Your task to perform on an android device: Show me popular videos on Youtube Image 0: 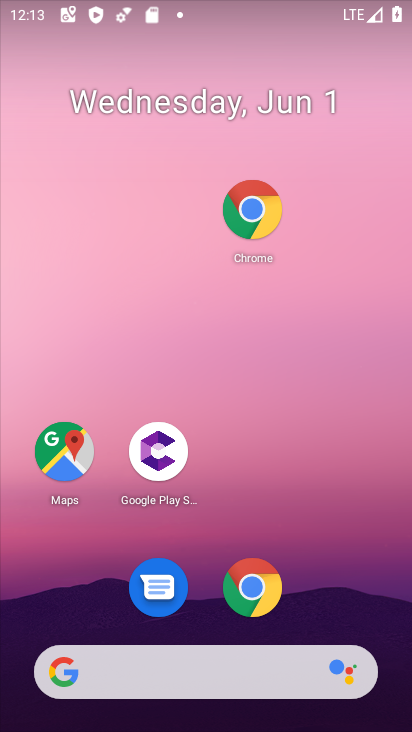
Step 0: drag from (374, 545) to (351, 167)
Your task to perform on an android device: Show me popular videos on Youtube Image 1: 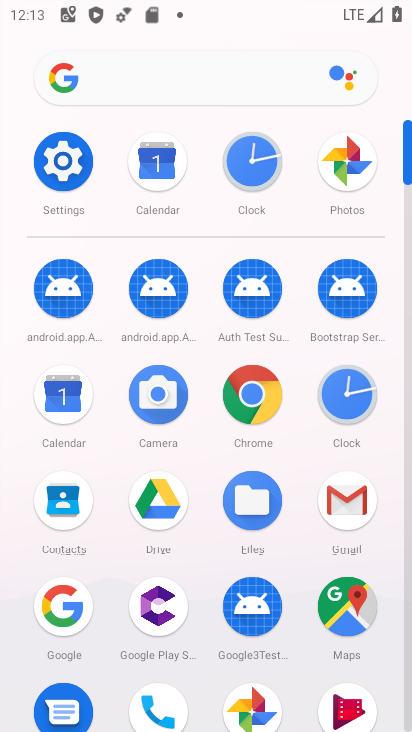
Step 1: drag from (193, 240) to (191, 67)
Your task to perform on an android device: Show me popular videos on Youtube Image 2: 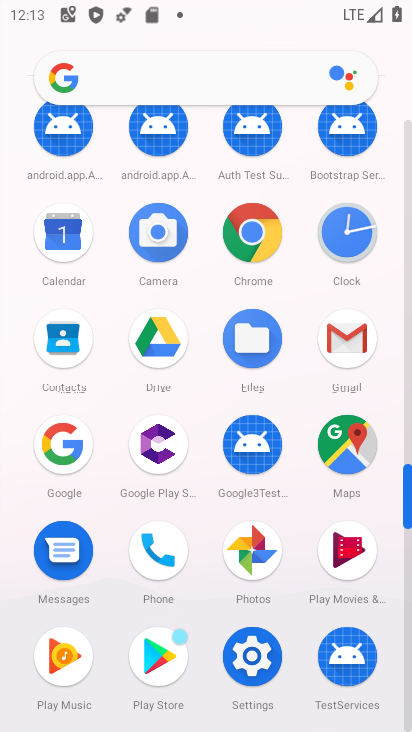
Step 2: drag from (200, 515) to (191, 361)
Your task to perform on an android device: Show me popular videos on Youtube Image 3: 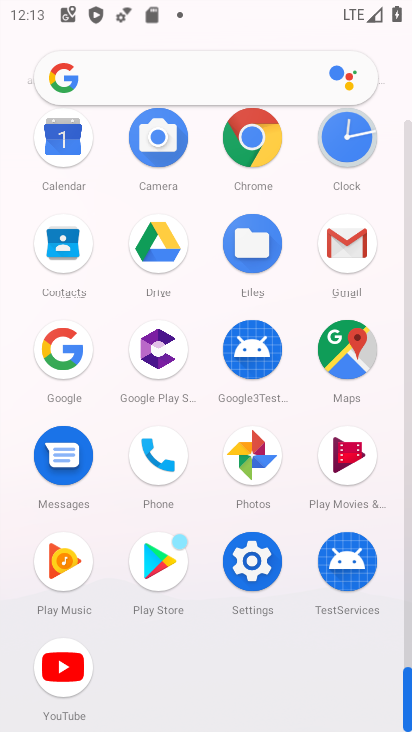
Step 3: click (50, 665)
Your task to perform on an android device: Show me popular videos on Youtube Image 4: 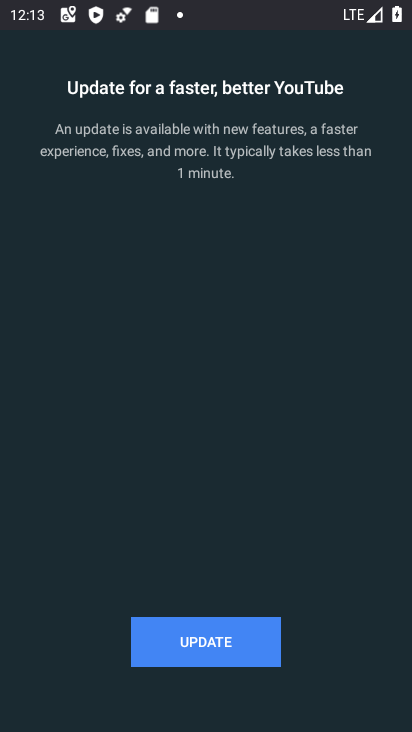
Step 4: click (209, 649)
Your task to perform on an android device: Show me popular videos on Youtube Image 5: 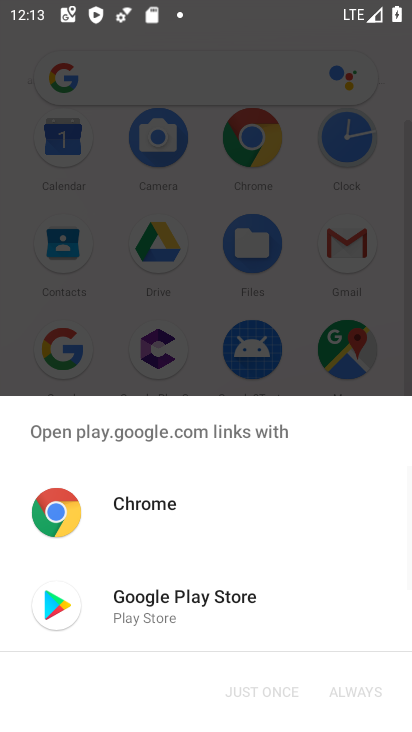
Step 5: click (263, 608)
Your task to perform on an android device: Show me popular videos on Youtube Image 6: 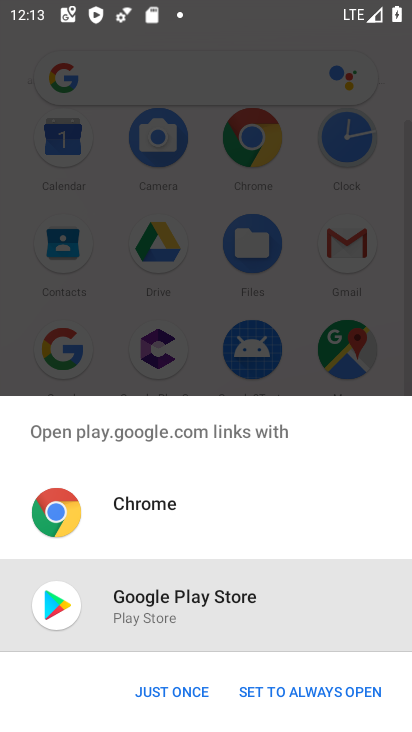
Step 6: click (172, 693)
Your task to perform on an android device: Show me popular videos on Youtube Image 7: 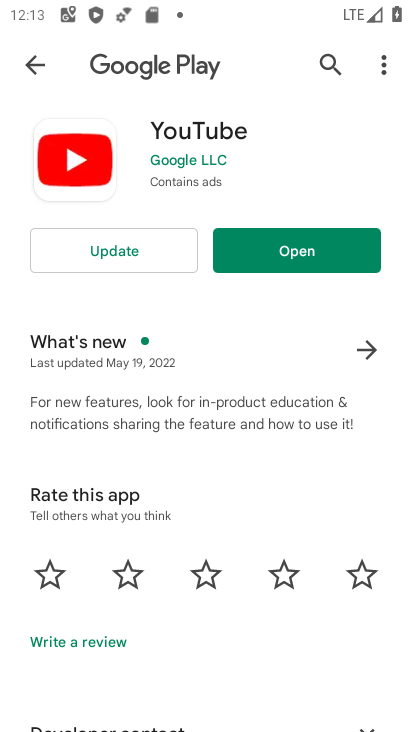
Step 7: click (179, 247)
Your task to perform on an android device: Show me popular videos on Youtube Image 8: 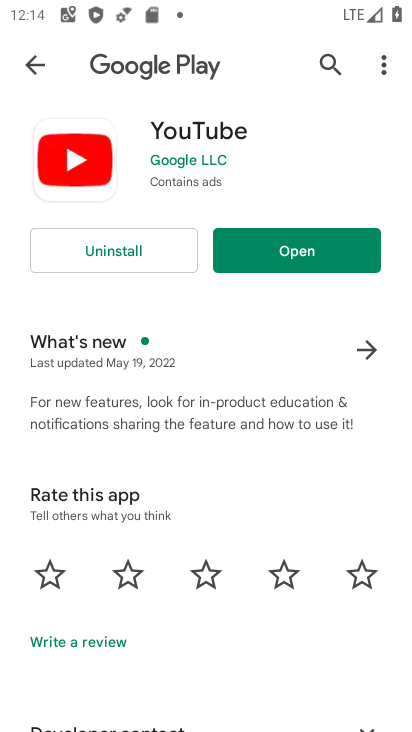
Step 8: click (270, 244)
Your task to perform on an android device: Show me popular videos on Youtube Image 9: 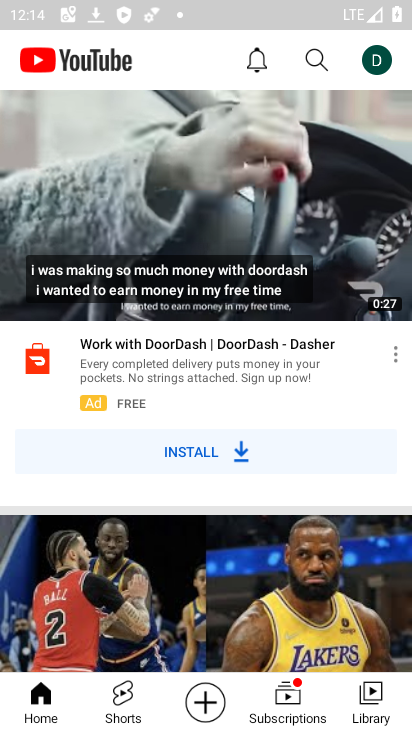
Step 9: drag from (186, 204) to (189, 266)
Your task to perform on an android device: Show me popular videos on Youtube Image 10: 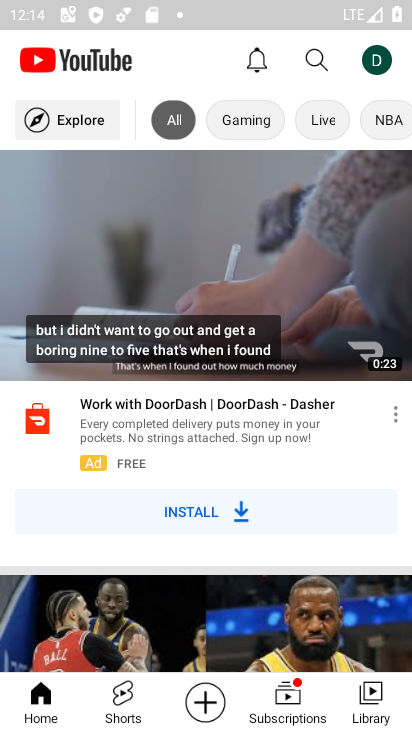
Step 10: click (80, 112)
Your task to perform on an android device: Show me popular videos on Youtube Image 11: 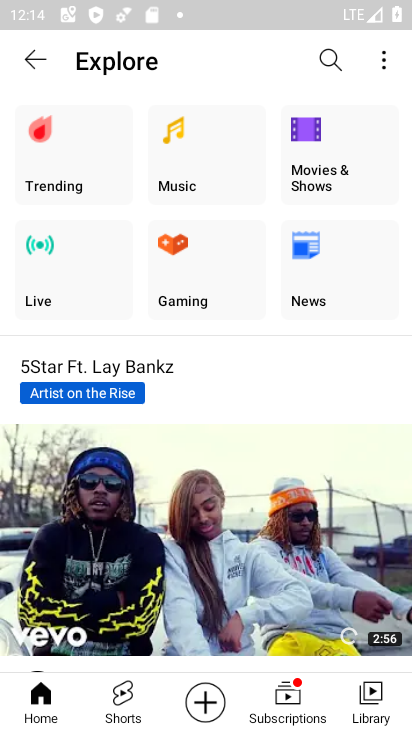
Step 11: click (92, 161)
Your task to perform on an android device: Show me popular videos on Youtube Image 12: 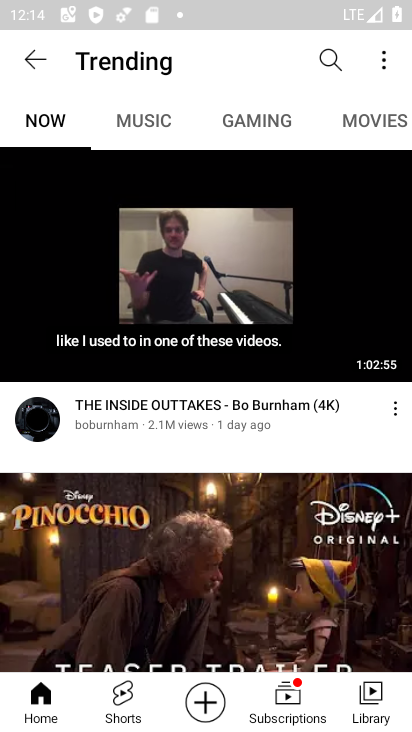
Step 12: task complete